Your task to perform on an android device: Open calendar and show me the fourth week of next month Image 0: 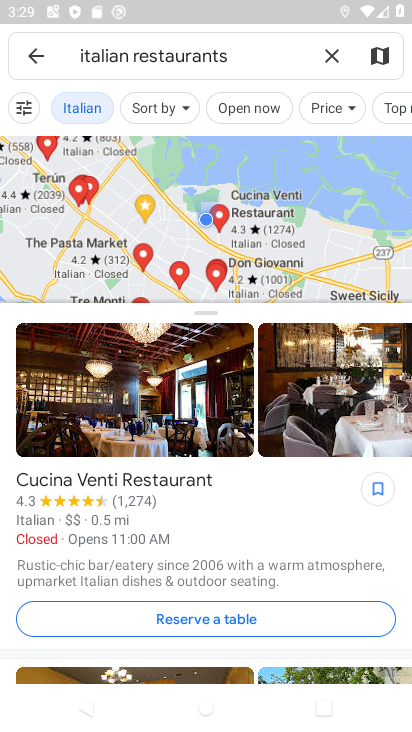
Step 0: press home button
Your task to perform on an android device: Open calendar and show me the fourth week of next month Image 1: 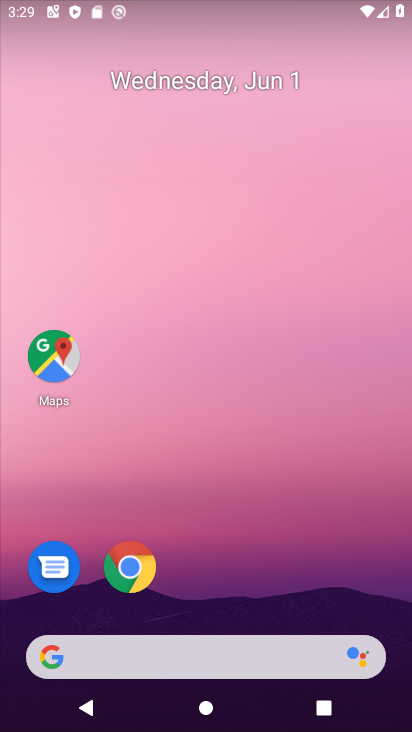
Step 1: drag from (254, 641) to (237, 348)
Your task to perform on an android device: Open calendar and show me the fourth week of next month Image 2: 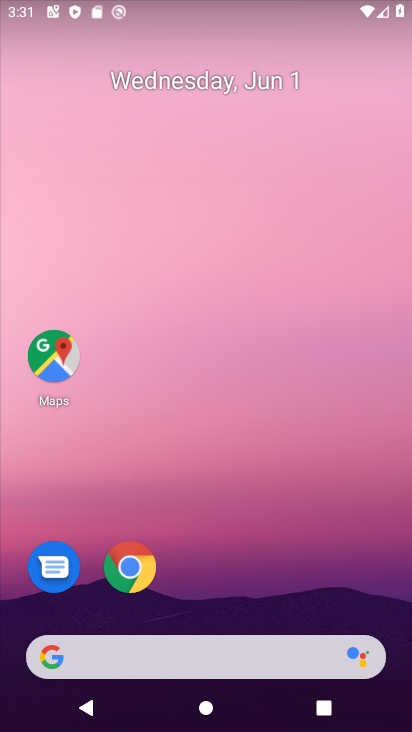
Step 2: drag from (265, 646) to (230, 261)
Your task to perform on an android device: Open calendar and show me the fourth week of next month Image 3: 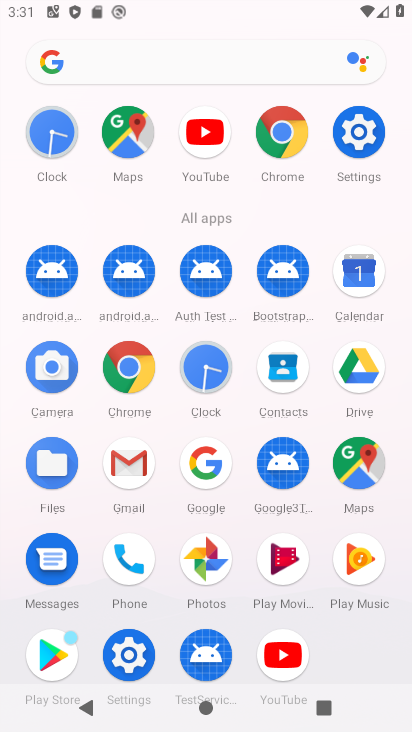
Step 3: click (377, 267)
Your task to perform on an android device: Open calendar and show me the fourth week of next month Image 4: 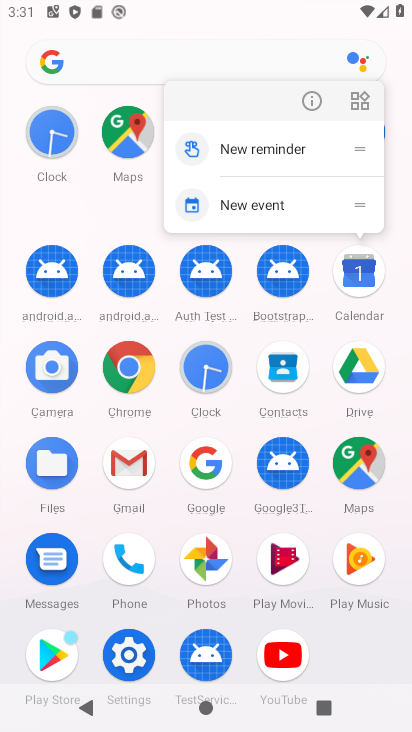
Step 4: click (361, 282)
Your task to perform on an android device: Open calendar and show me the fourth week of next month Image 5: 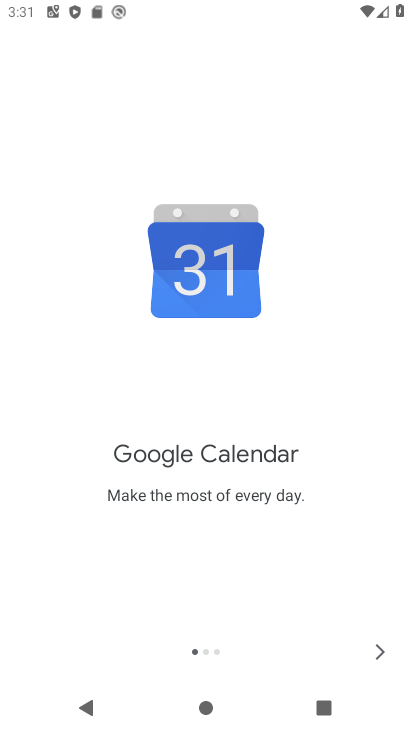
Step 5: click (391, 644)
Your task to perform on an android device: Open calendar and show me the fourth week of next month Image 6: 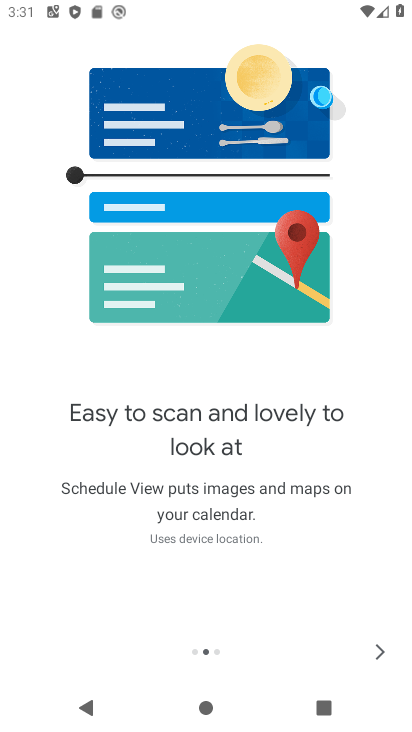
Step 6: click (375, 655)
Your task to perform on an android device: Open calendar and show me the fourth week of next month Image 7: 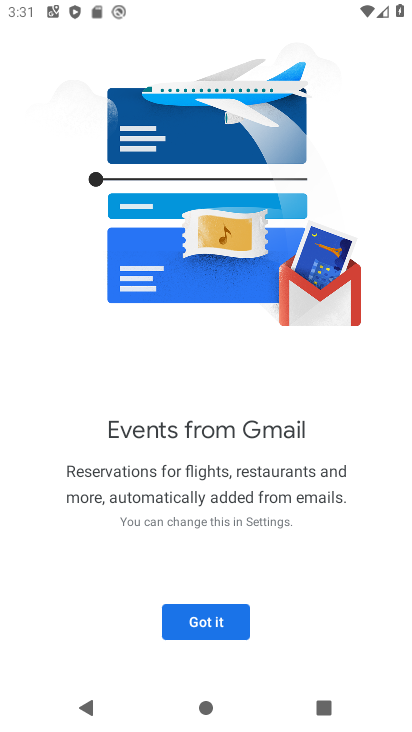
Step 7: click (217, 633)
Your task to perform on an android device: Open calendar and show me the fourth week of next month Image 8: 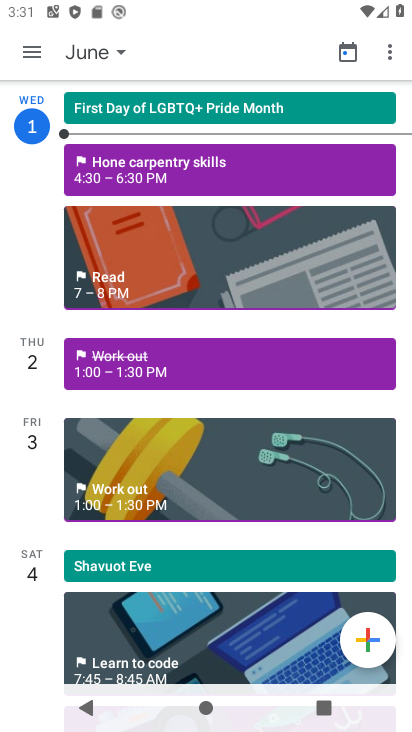
Step 8: click (84, 44)
Your task to perform on an android device: Open calendar and show me the fourth week of next month Image 9: 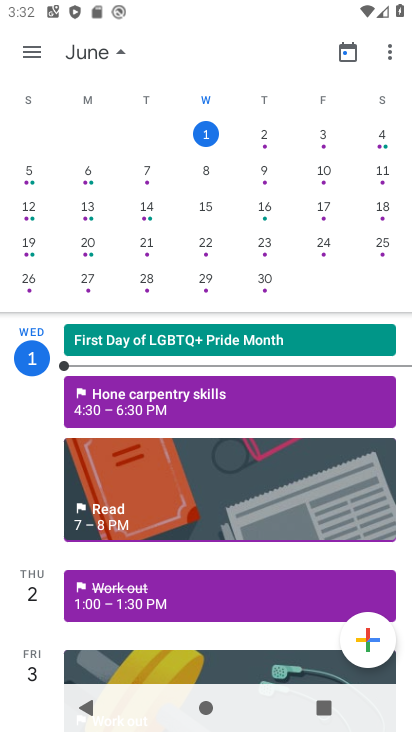
Step 9: drag from (342, 215) to (2, 244)
Your task to perform on an android device: Open calendar and show me the fourth week of next month Image 10: 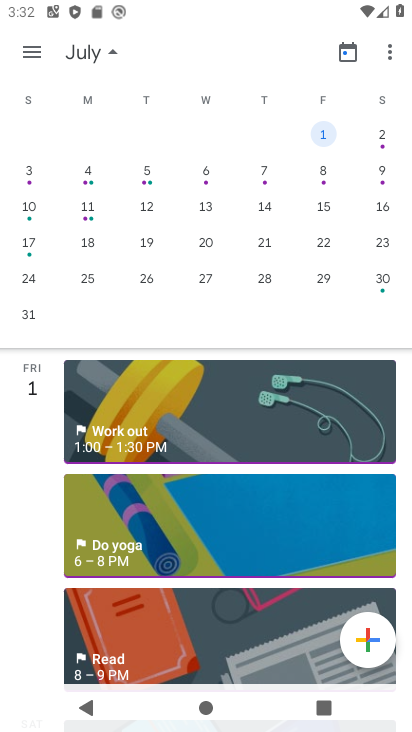
Step 10: click (24, 284)
Your task to perform on an android device: Open calendar and show me the fourth week of next month Image 11: 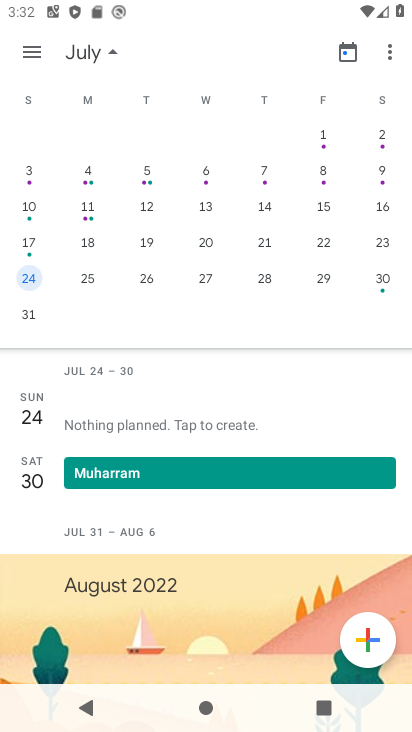
Step 11: task complete